Your task to perform on an android device: find snoozed emails in the gmail app Image 0: 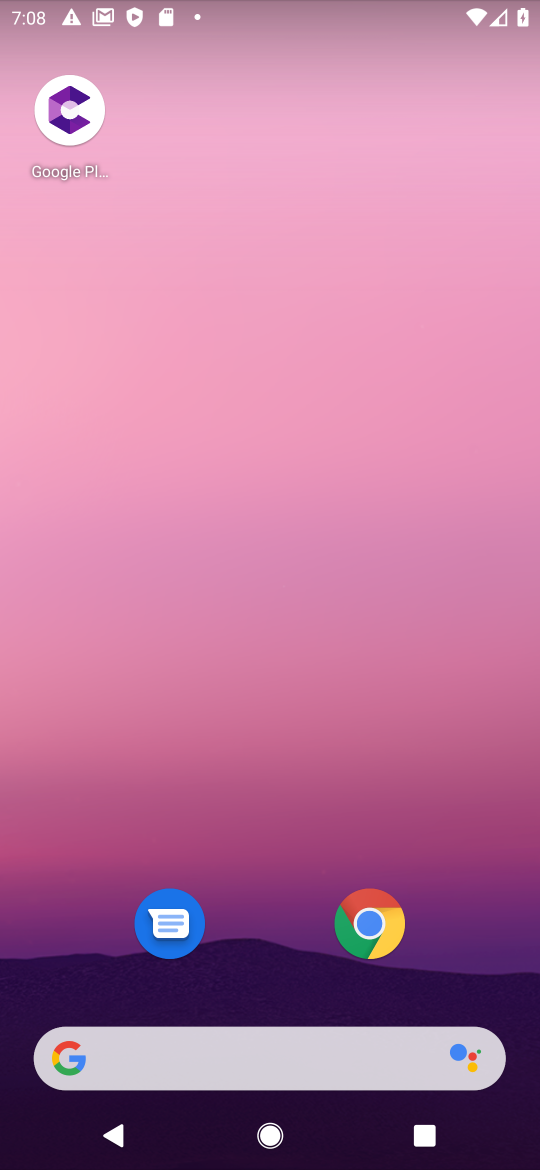
Step 0: drag from (520, 1025) to (235, 50)
Your task to perform on an android device: find snoozed emails in the gmail app Image 1: 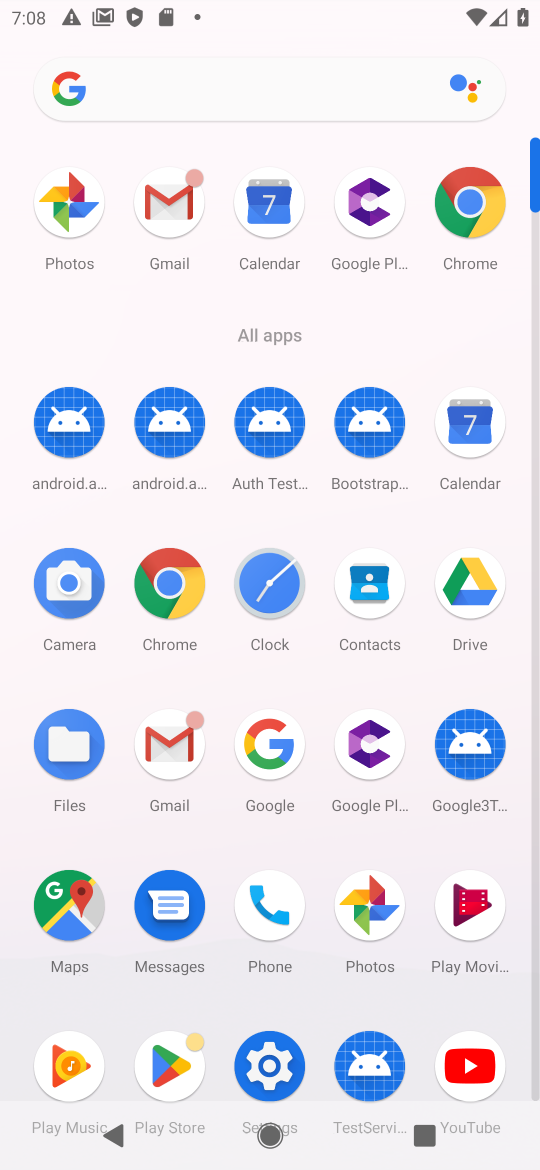
Step 1: click (166, 753)
Your task to perform on an android device: find snoozed emails in the gmail app Image 2: 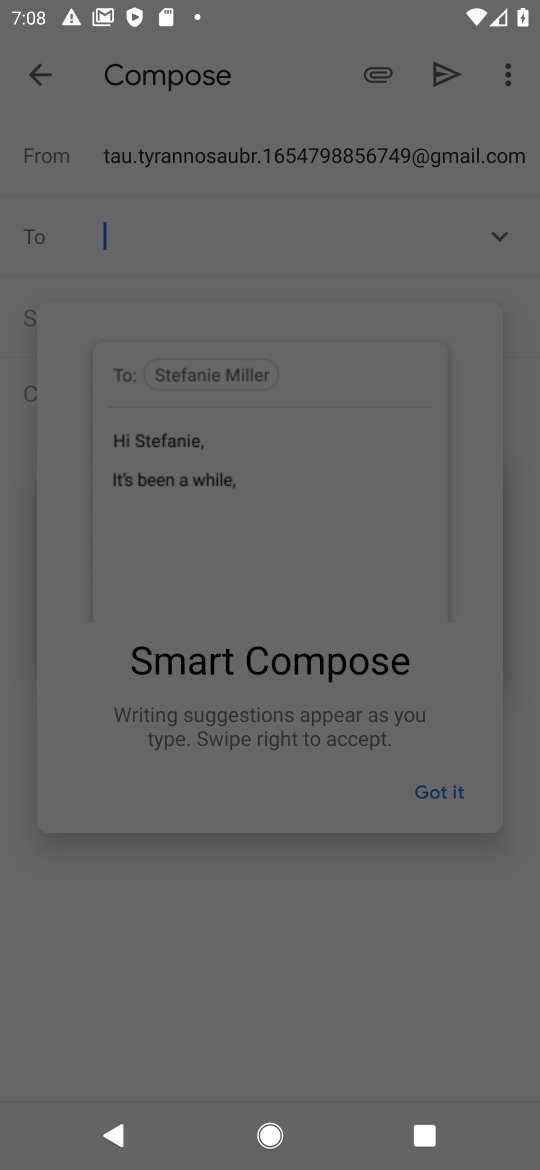
Step 2: press home button
Your task to perform on an android device: find snoozed emails in the gmail app Image 3: 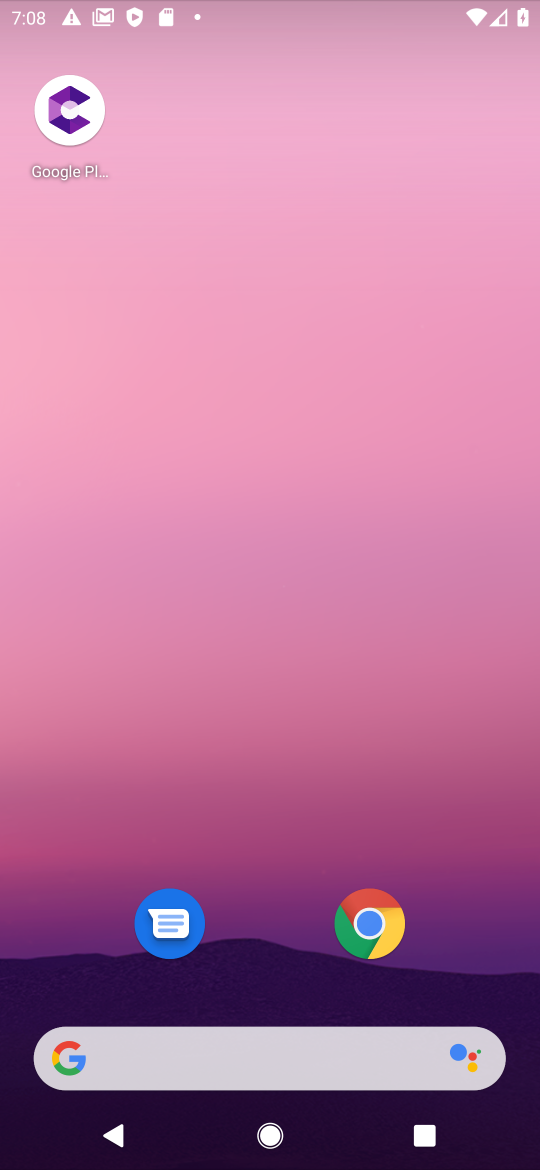
Step 3: drag from (511, 1006) to (346, 17)
Your task to perform on an android device: find snoozed emails in the gmail app Image 4: 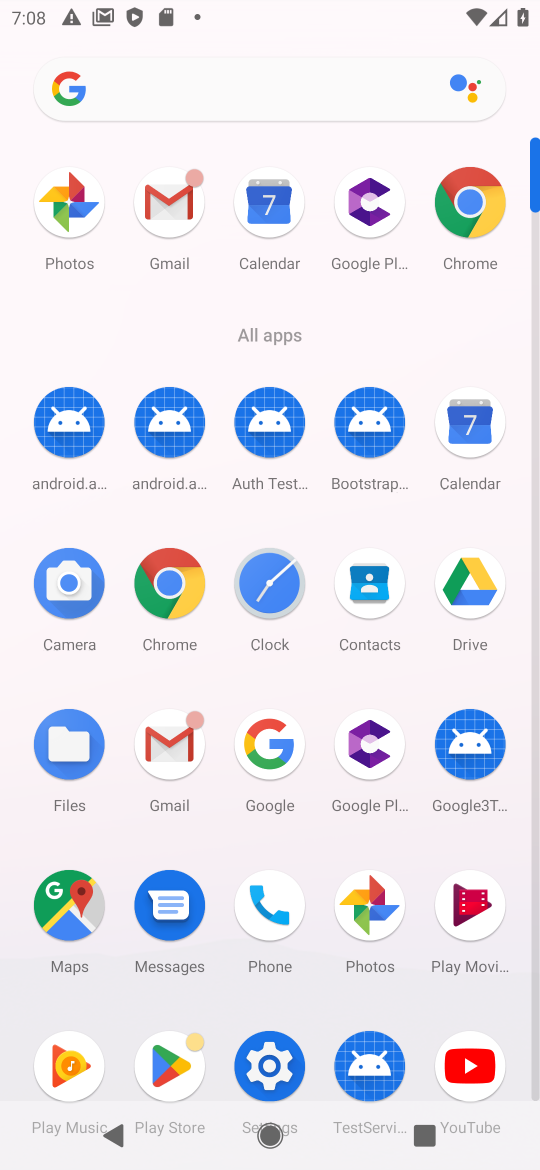
Step 4: click (154, 762)
Your task to perform on an android device: find snoozed emails in the gmail app Image 5: 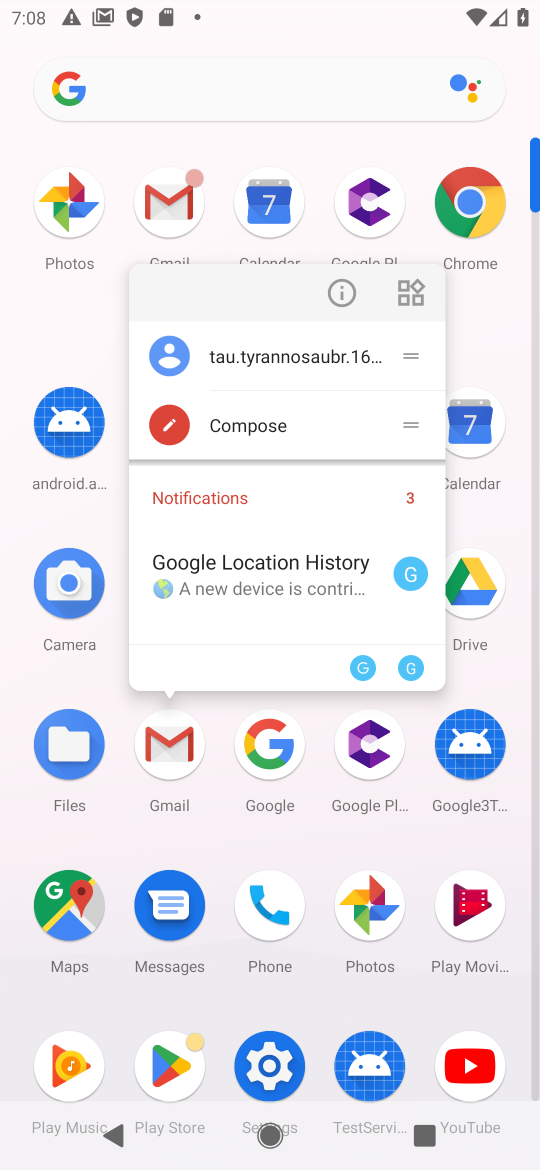
Step 5: click (154, 762)
Your task to perform on an android device: find snoozed emails in the gmail app Image 6: 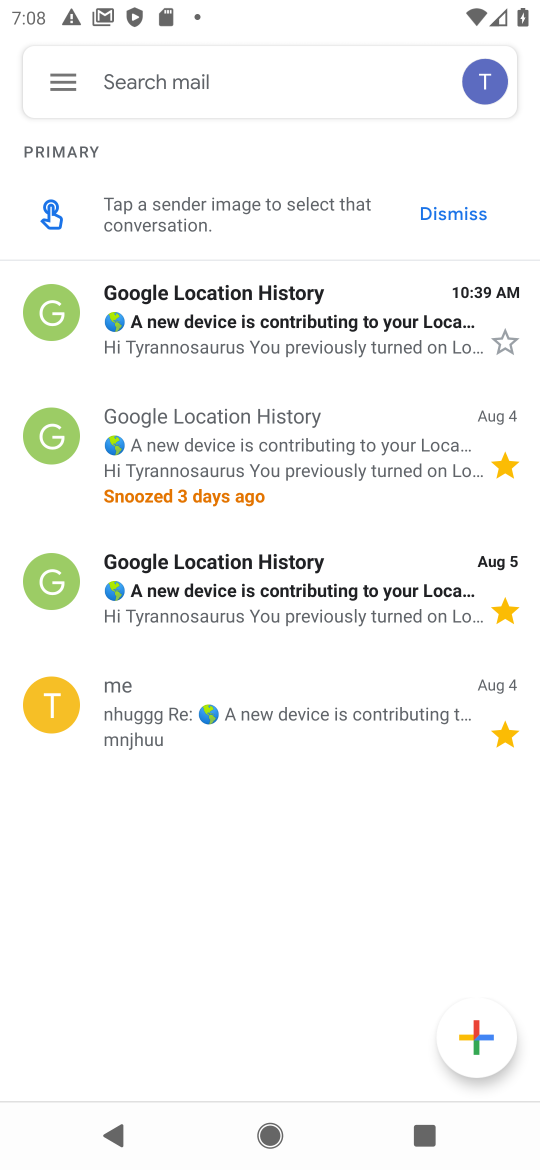
Step 6: click (52, 80)
Your task to perform on an android device: find snoozed emails in the gmail app Image 7: 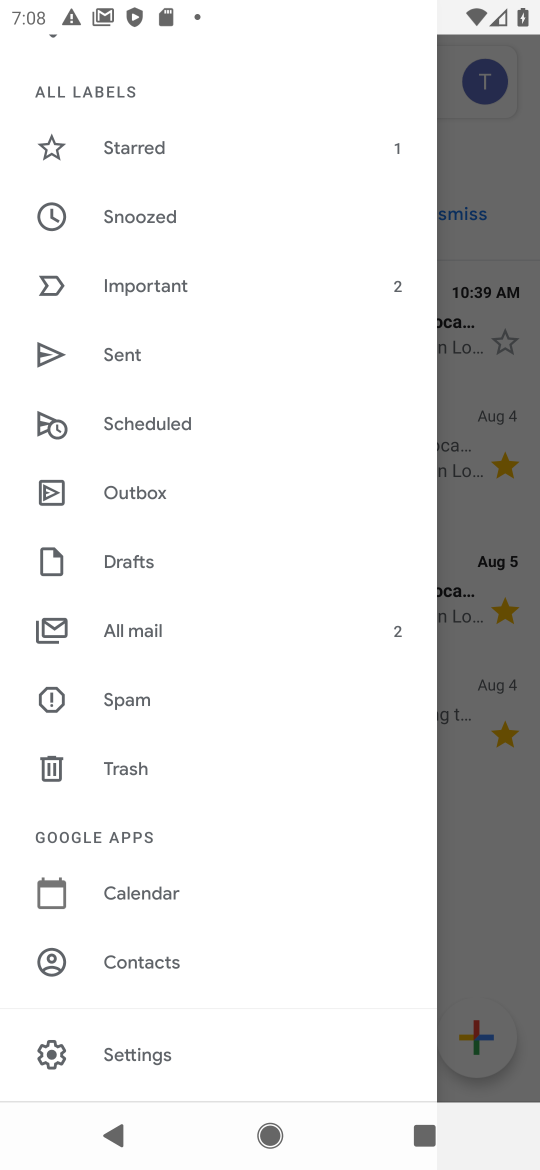
Step 7: click (142, 233)
Your task to perform on an android device: find snoozed emails in the gmail app Image 8: 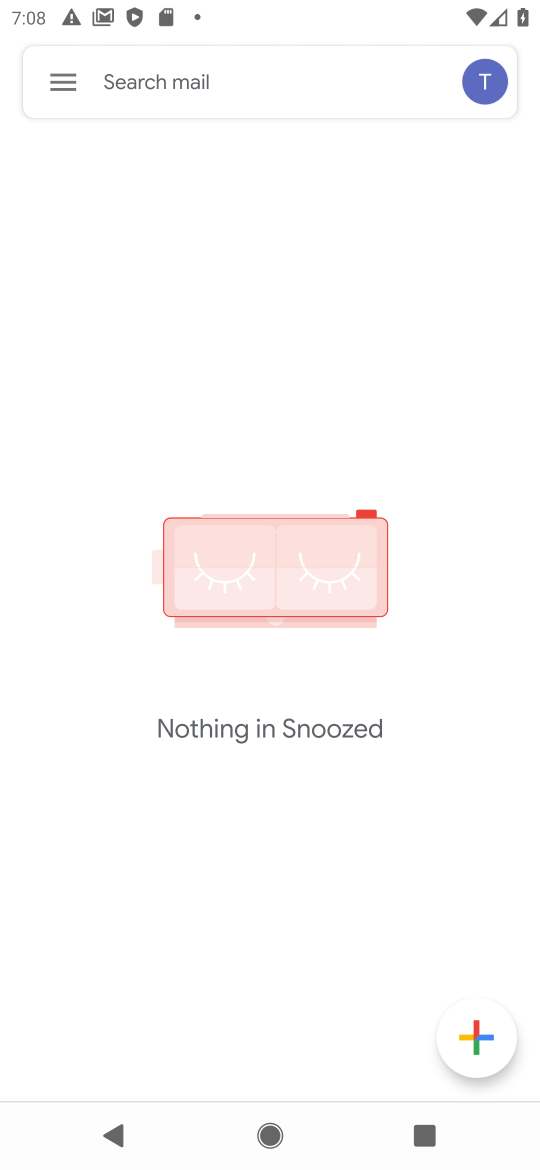
Step 8: task complete